Your task to perform on an android device: Open the calendar app, open the side menu, and click the "Day" option Image 0: 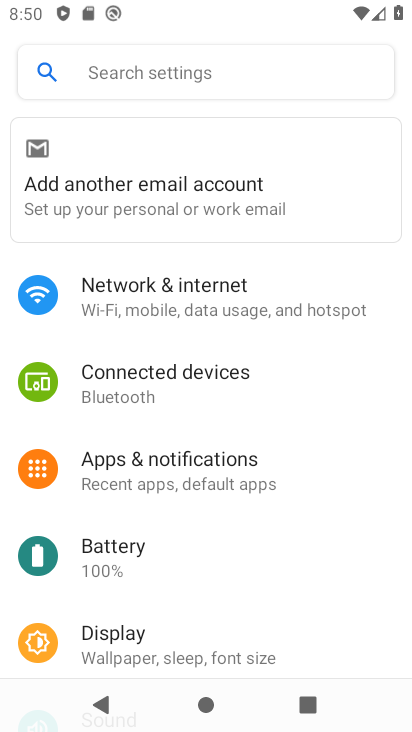
Step 0: click (85, 695)
Your task to perform on an android device: Open the calendar app, open the side menu, and click the "Day" option Image 1: 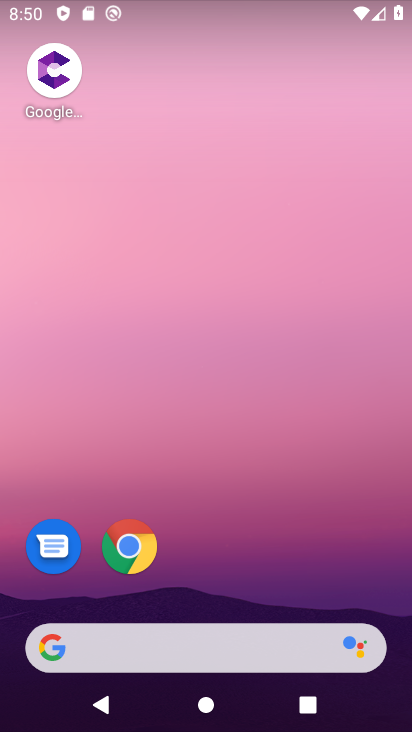
Step 1: drag from (328, 562) to (381, 24)
Your task to perform on an android device: Open the calendar app, open the side menu, and click the "Day" option Image 2: 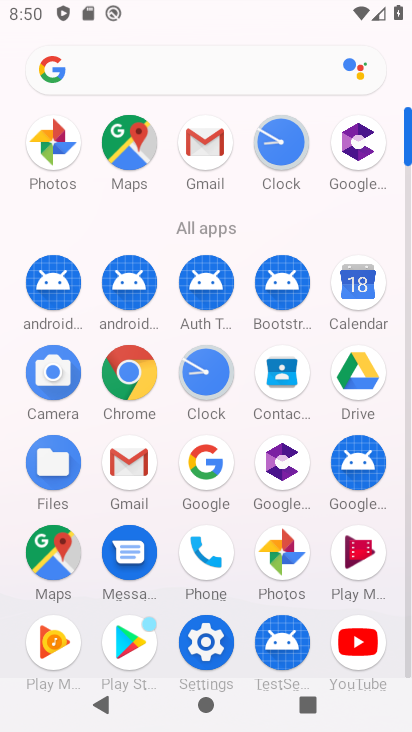
Step 2: click (354, 277)
Your task to perform on an android device: Open the calendar app, open the side menu, and click the "Day" option Image 3: 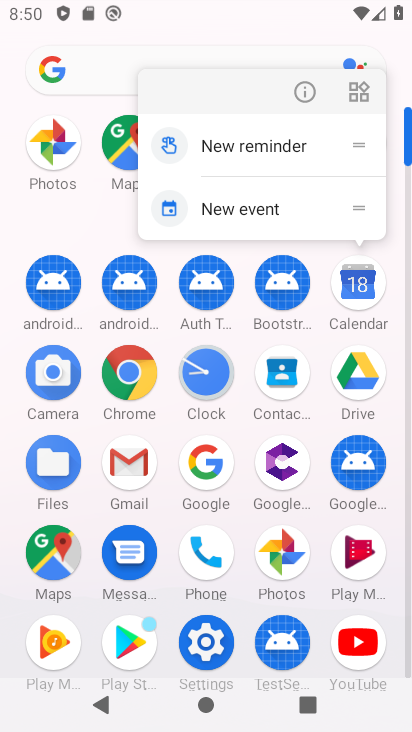
Step 3: click (354, 275)
Your task to perform on an android device: Open the calendar app, open the side menu, and click the "Day" option Image 4: 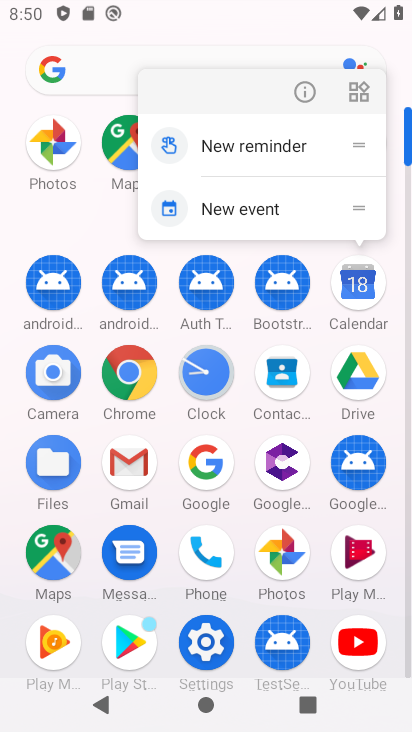
Step 4: click (354, 276)
Your task to perform on an android device: Open the calendar app, open the side menu, and click the "Day" option Image 5: 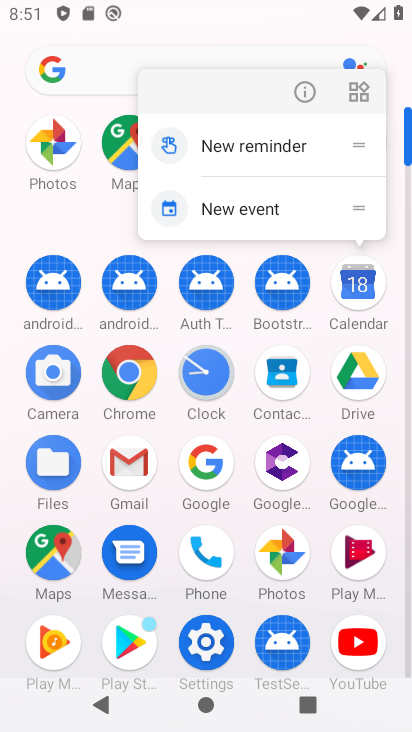
Step 5: click (50, 208)
Your task to perform on an android device: Open the calendar app, open the side menu, and click the "Day" option Image 6: 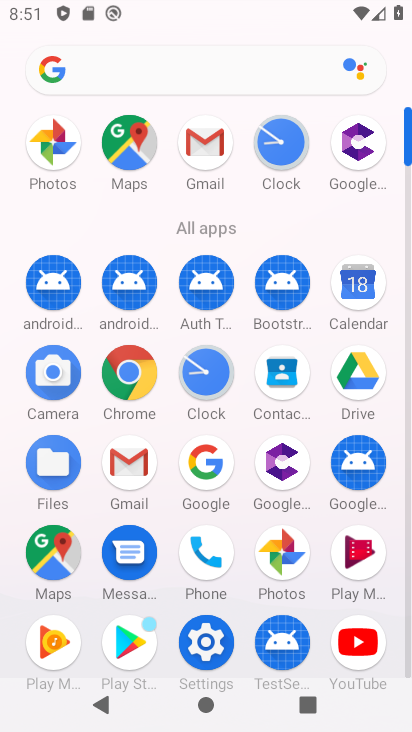
Step 6: click (293, 22)
Your task to perform on an android device: Open the calendar app, open the side menu, and click the "Day" option Image 7: 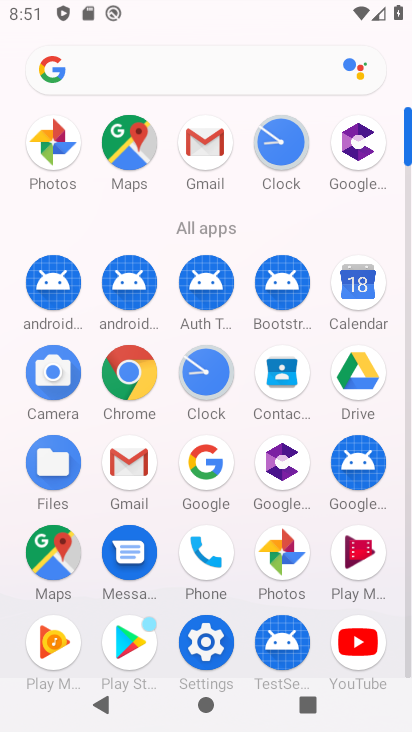
Step 7: click (353, 303)
Your task to perform on an android device: Open the calendar app, open the side menu, and click the "Day" option Image 8: 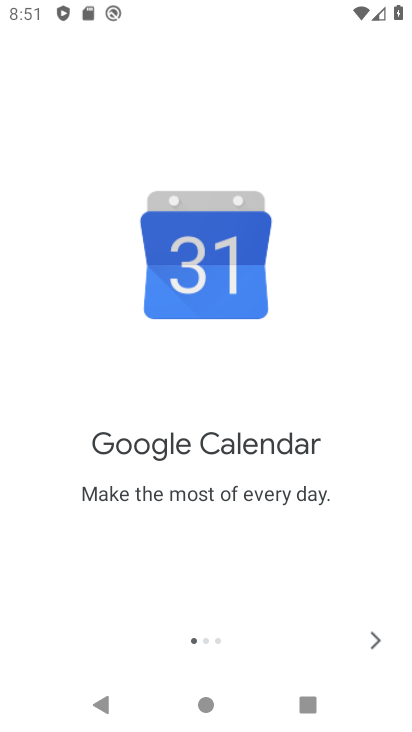
Step 8: click (375, 643)
Your task to perform on an android device: Open the calendar app, open the side menu, and click the "Day" option Image 9: 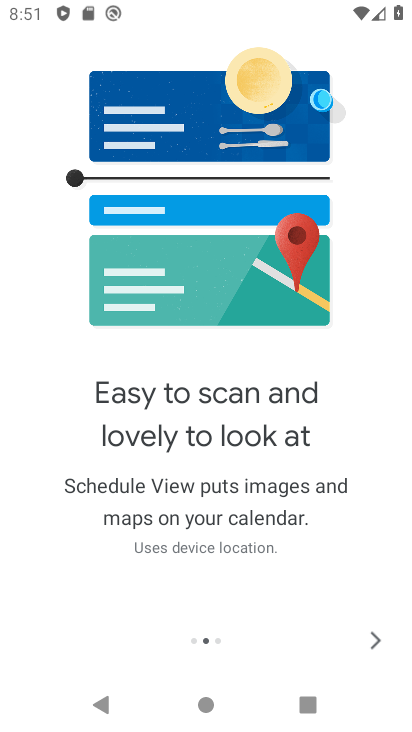
Step 9: click (376, 643)
Your task to perform on an android device: Open the calendar app, open the side menu, and click the "Day" option Image 10: 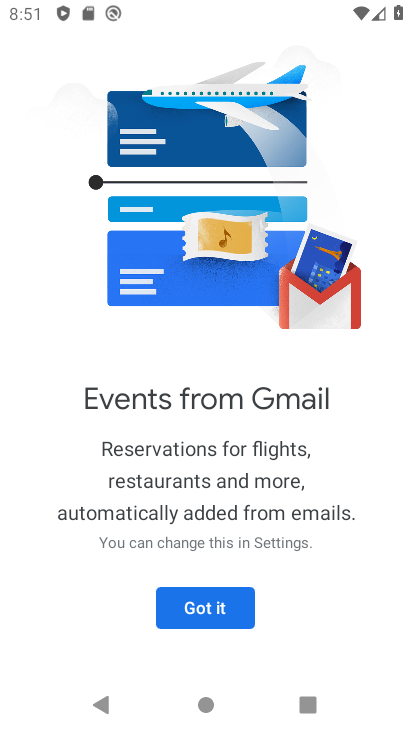
Step 10: click (190, 620)
Your task to perform on an android device: Open the calendar app, open the side menu, and click the "Day" option Image 11: 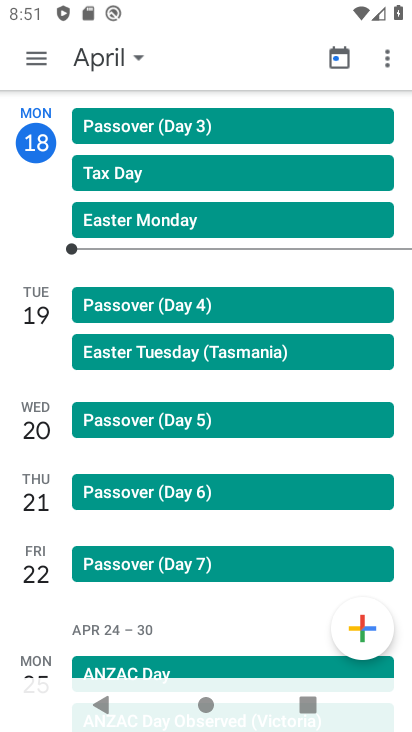
Step 11: click (33, 62)
Your task to perform on an android device: Open the calendar app, open the side menu, and click the "Day" option Image 12: 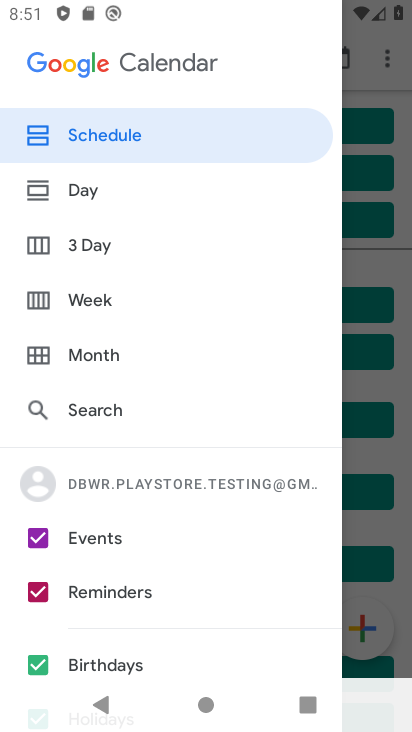
Step 12: click (65, 194)
Your task to perform on an android device: Open the calendar app, open the side menu, and click the "Day" option Image 13: 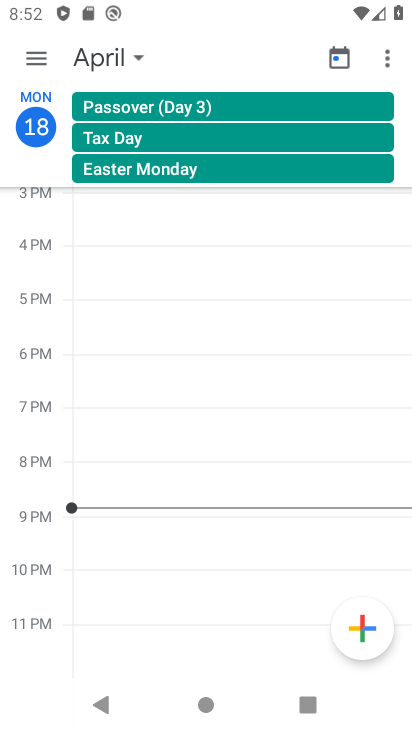
Step 13: task complete